Your task to perform on an android device: Show me recent news Image 0: 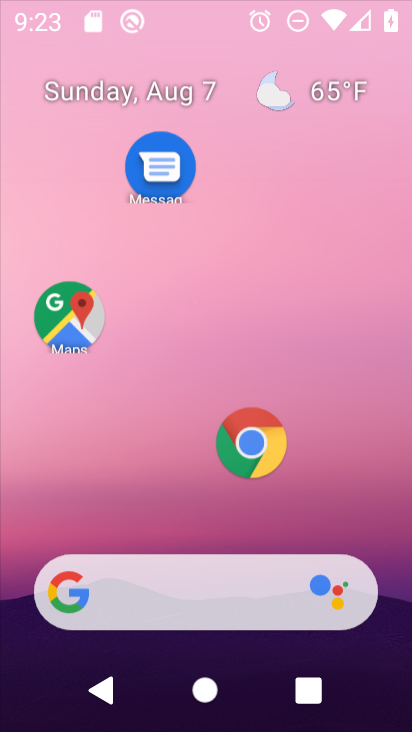
Step 0: press home button
Your task to perform on an android device: Show me recent news Image 1: 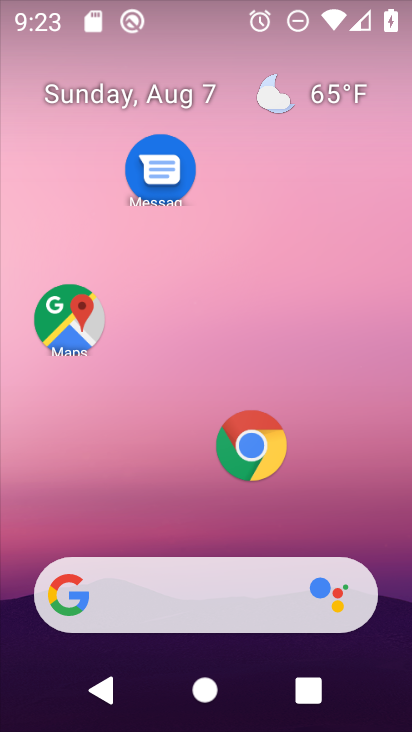
Step 1: task complete